Your task to perform on an android device: turn on the 12-hour format for clock Image 0: 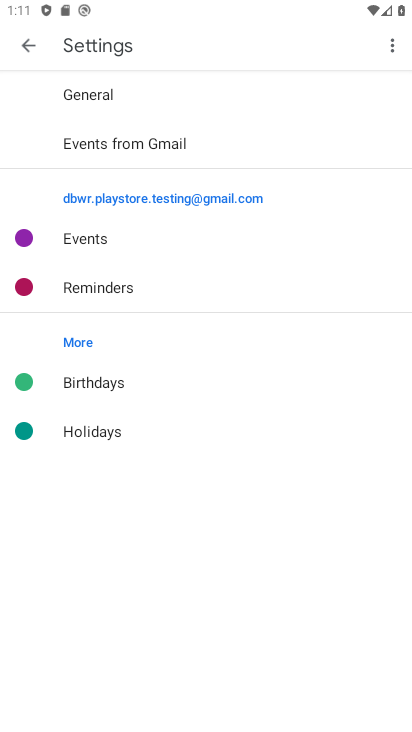
Step 0: press home button
Your task to perform on an android device: turn on the 12-hour format for clock Image 1: 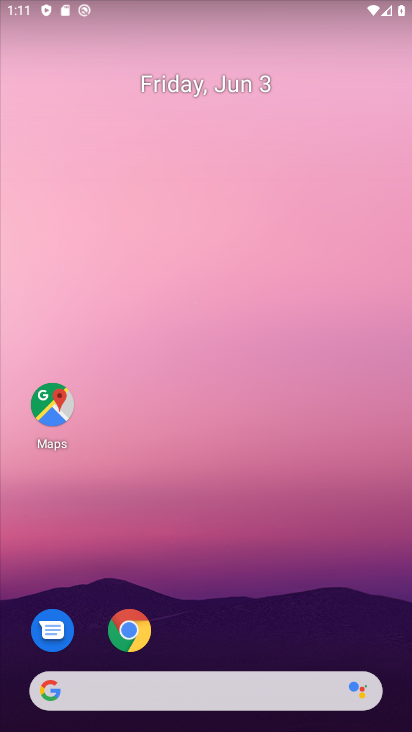
Step 1: drag from (216, 727) to (173, 147)
Your task to perform on an android device: turn on the 12-hour format for clock Image 2: 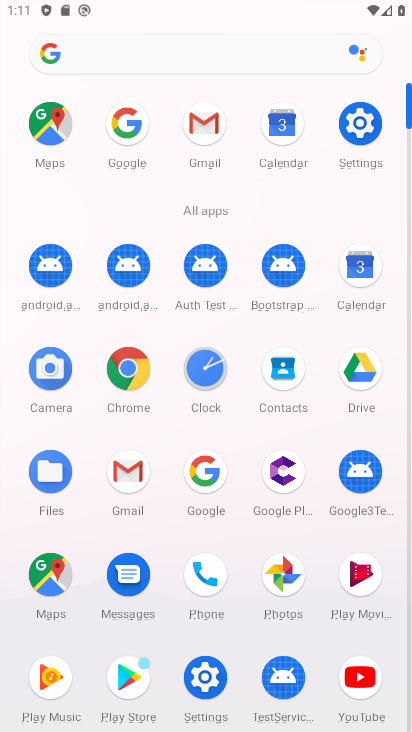
Step 2: click (207, 372)
Your task to perform on an android device: turn on the 12-hour format for clock Image 3: 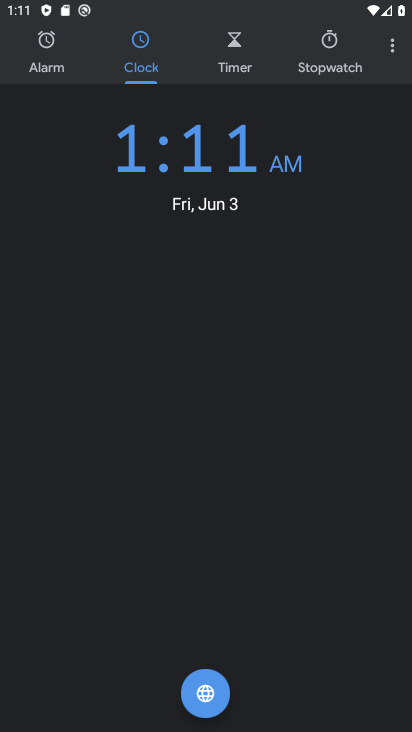
Step 3: click (393, 52)
Your task to perform on an android device: turn on the 12-hour format for clock Image 4: 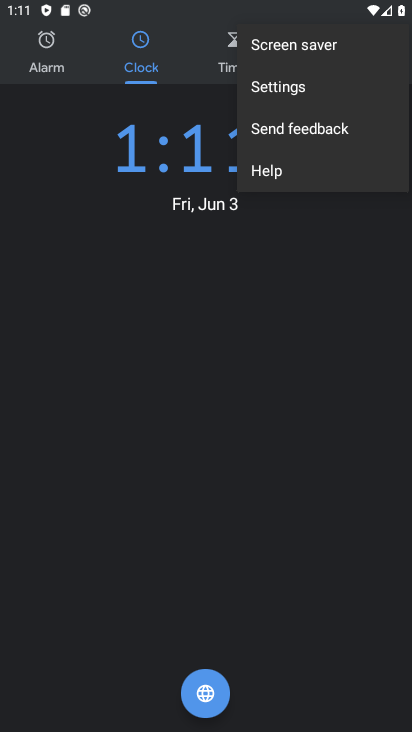
Step 4: click (297, 87)
Your task to perform on an android device: turn on the 12-hour format for clock Image 5: 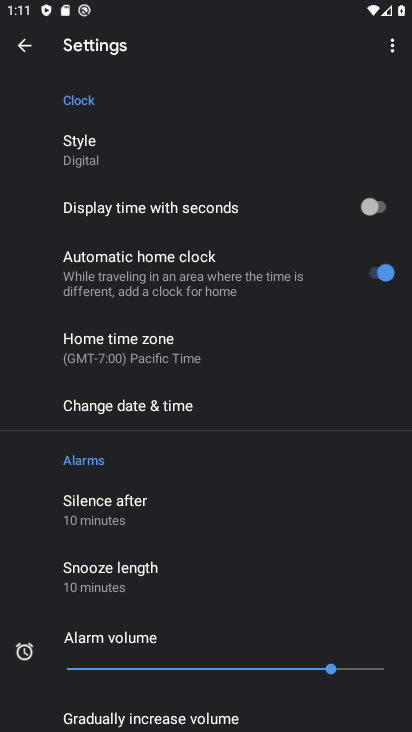
Step 5: click (122, 401)
Your task to perform on an android device: turn on the 12-hour format for clock Image 6: 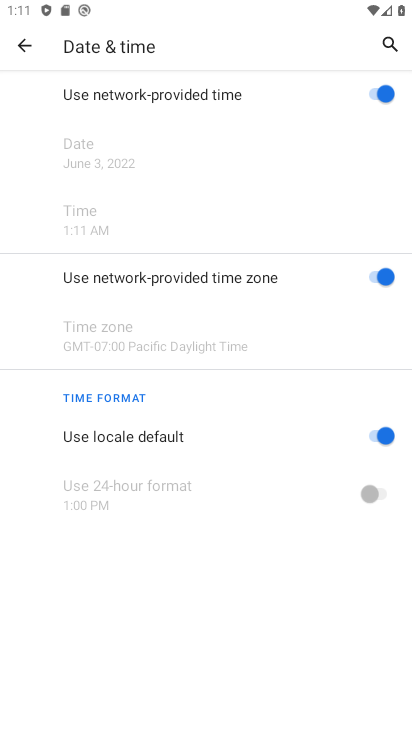
Step 6: task complete